Your task to perform on an android device: Go to eBay Image 0: 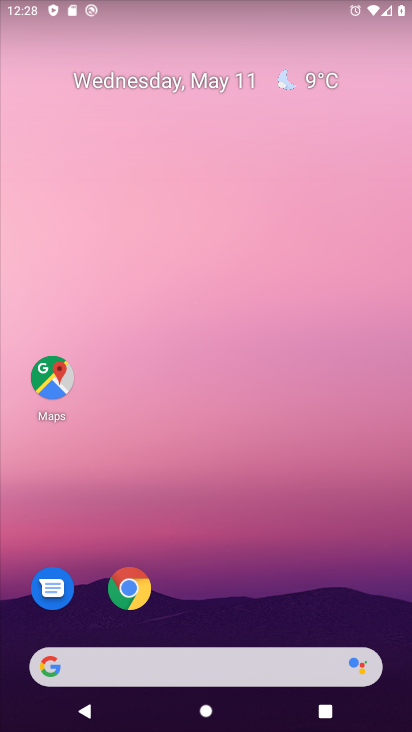
Step 0: click (131, 592)
Your task to perform on an android device: Go to eBay Image 1: 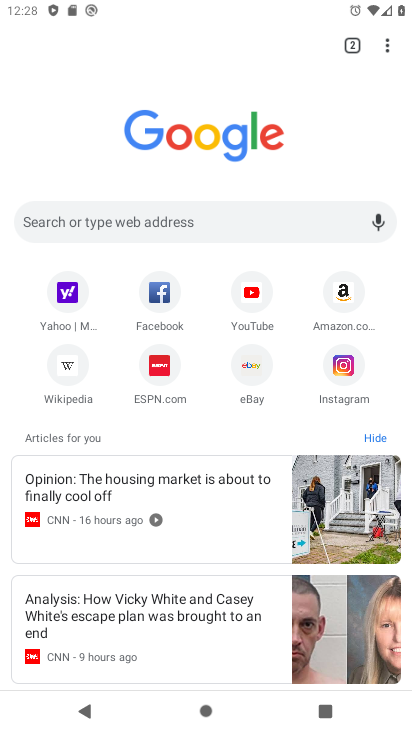
Step 1: click (252, 371)
Your task to perform on an android device: Go to eBay Image 2: 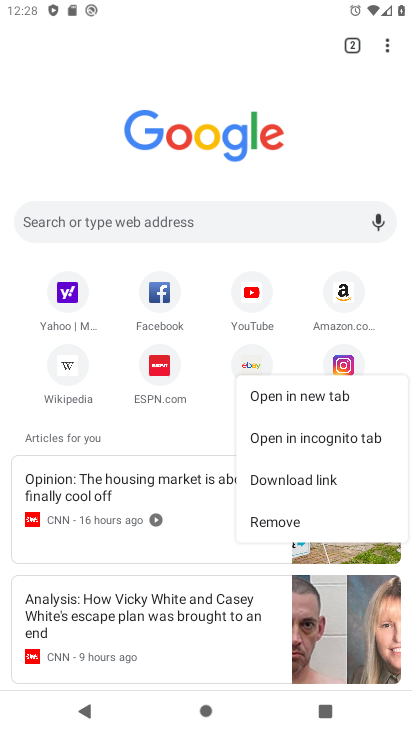
Step 2: click (250, 367)
Your task to perform on an android device: Go to eBay Image 3: 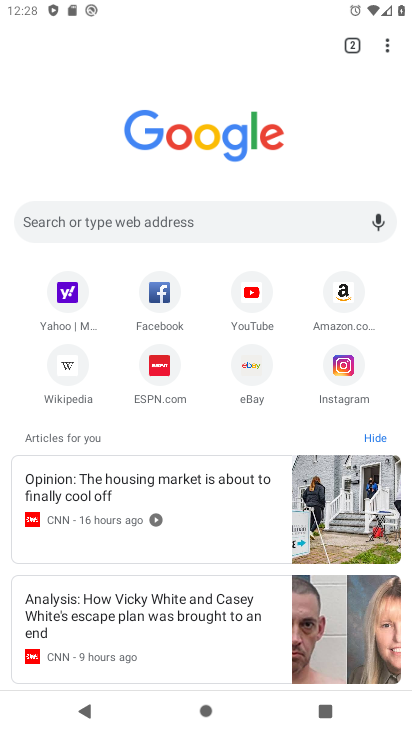
Step 3: click (251, 368)
Your task to perform on an android device: Go to eBay Image 4: 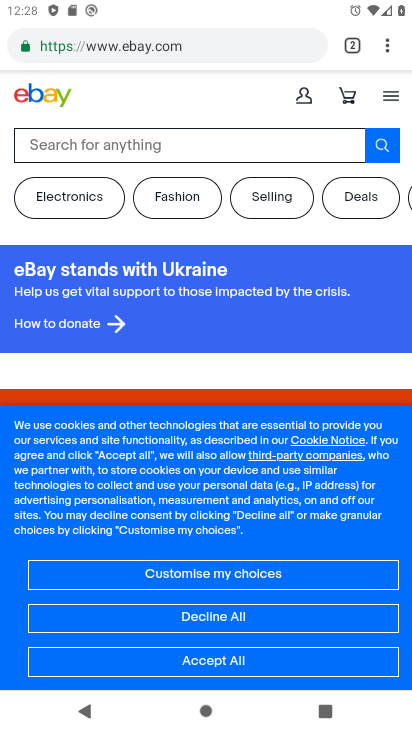
Step 4: task complete